Your task to perform on an android device: change the upload size in google photos Image 0: 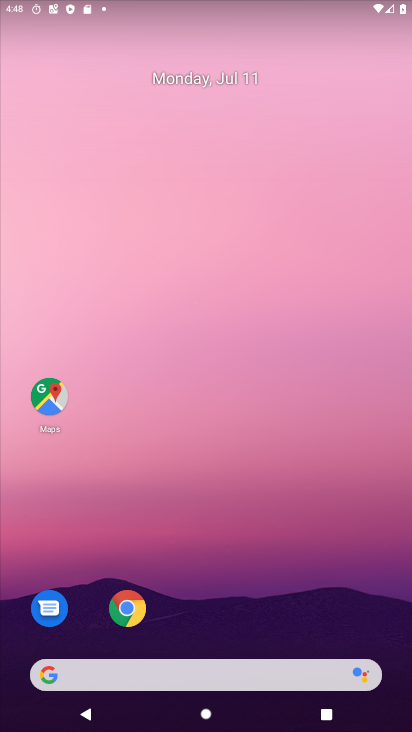
Step 0: drag from (206, 351) to (114, 36)
Your task to perform on an android device: change the upload size in google photos Image 1: 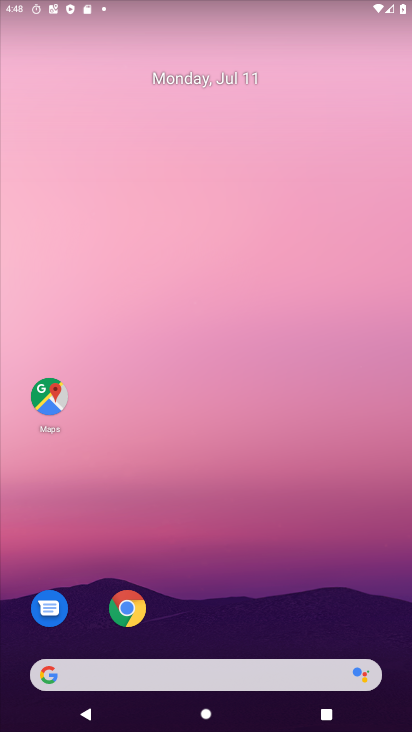
Step 1: drag from (274, 454) to (310, 194)
Your task to perform on an android device: change the upload size in google photos Image 2: 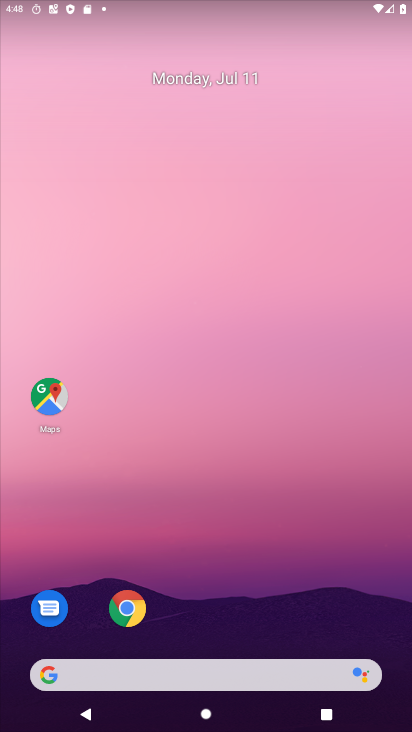
Step 2: drag from (250, 666) to (213, 164)
Your task to perform on an android device: change the upload size in google photos Image 3: 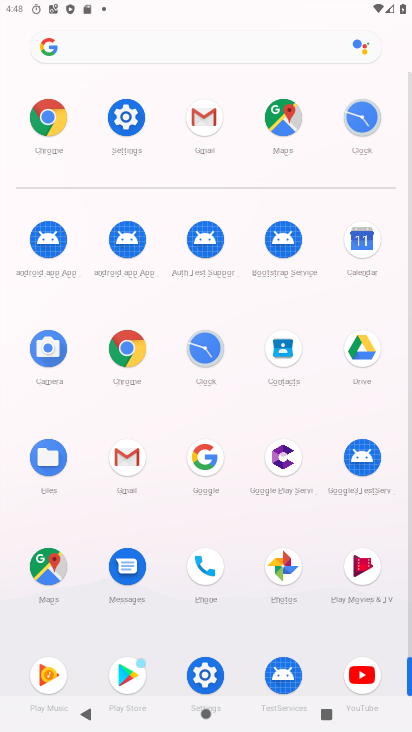
Step 3: click (274, 567)
Your task to perform on an android device: change the upload size in google photos Image 4: 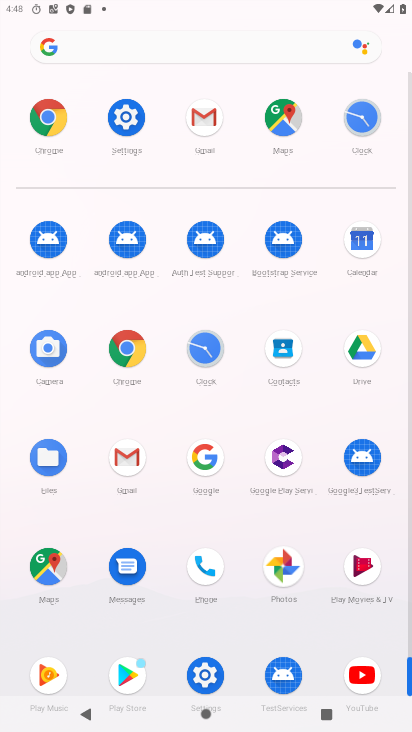
Step 4: click (274, 567)
Your task to perform on an android device: change the upload size in google photos Image 5: 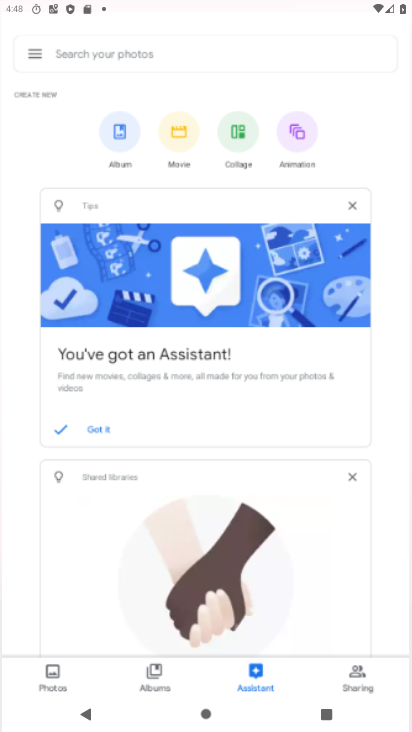
Step 5: click (275, 567)
Your task to perform on an android device: change the upload size in google photos Image 6: 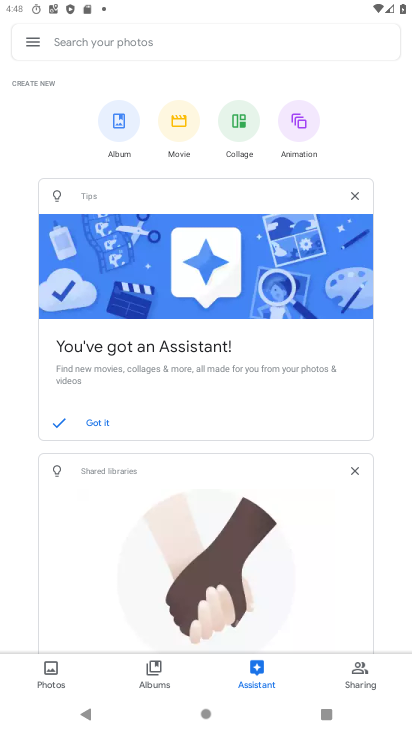
Step 6: click (29, 47)
Your task to perform on an android device: change the upload size in google photos Image 7: 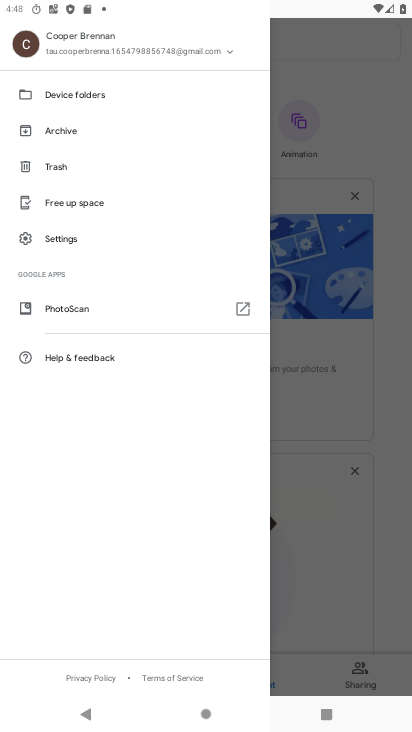
Step 7: click (55, 236)
Your task to perform on an android device: change the upload size in google photos Image 8: 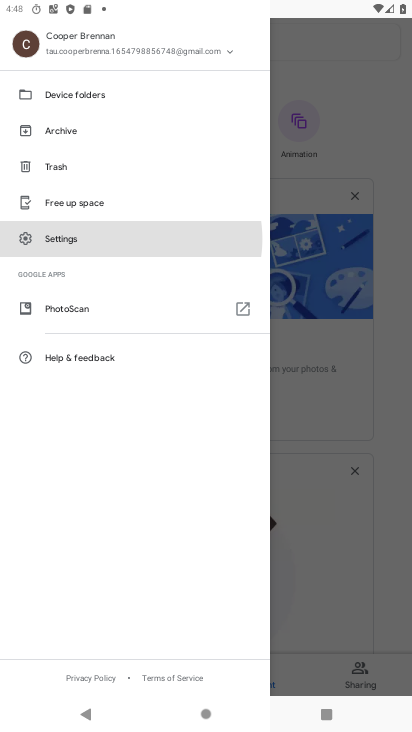
Step 8: click (59, 231)
Your task to perform on an android device: change the upload size in google photos Image 9: 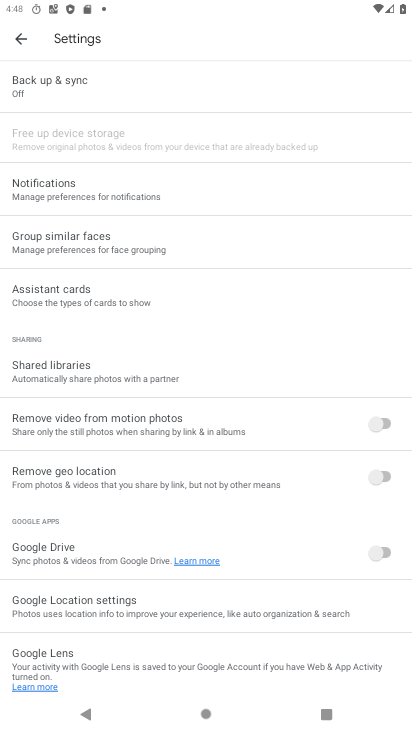
Step 9: click (45, 80)
Your task to perform on an android device: change the upload size in google photos Image 10: 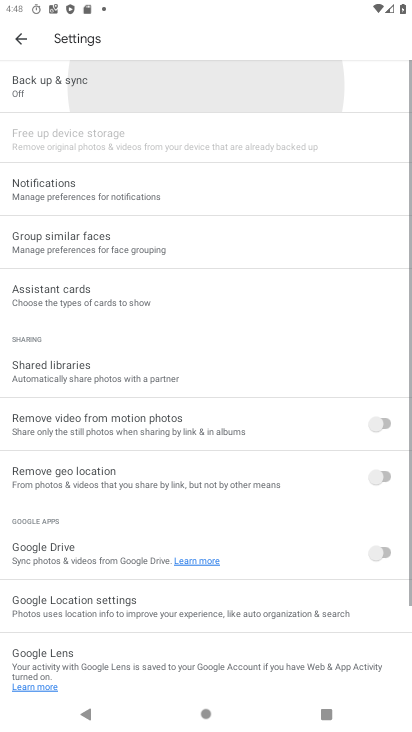
Step 10: click (44, 83)
Your task to perform on an android device: change the upload size in google photos Image 11: 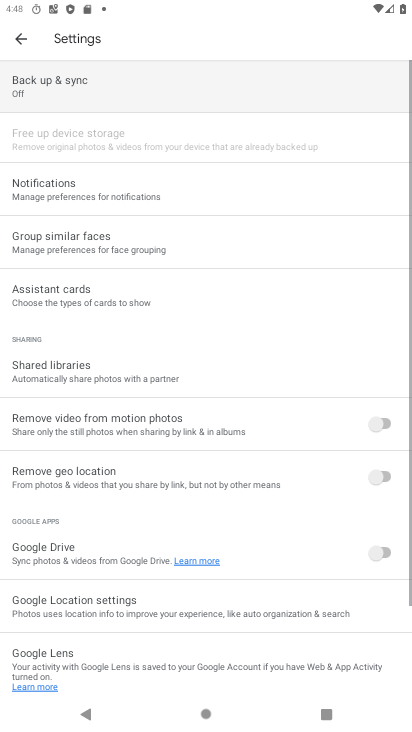
Step 11: click (44, 83)
Your task to perform on an android device: change the upload size in google photos Image 12: 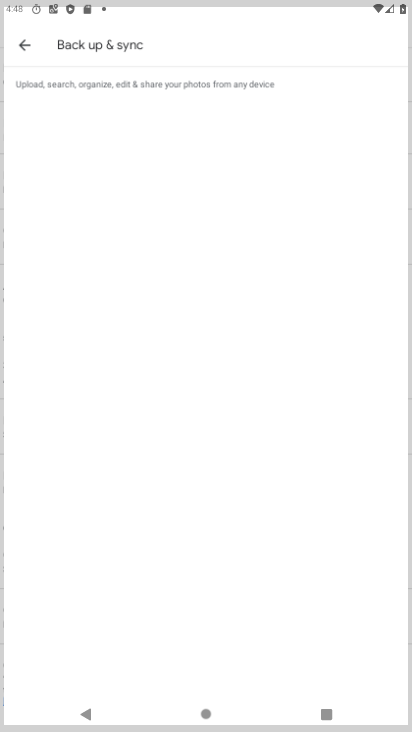
Step 12: click (44, 83)
Your task to perform on an android device: change the upload size in google photos Image 13: 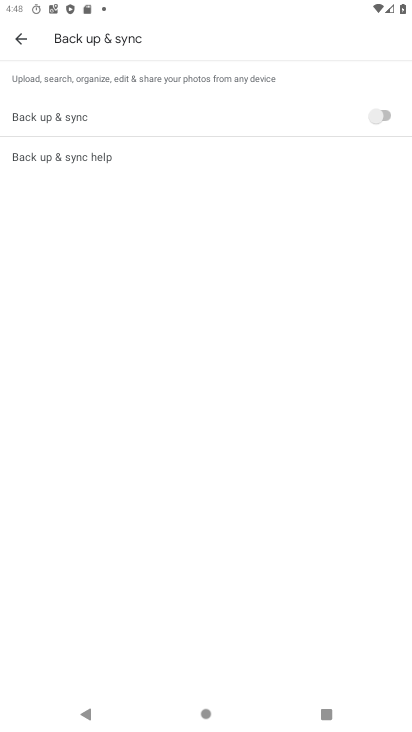
Step 13: click (35, 72)
Your task to perform on an android device: change the upload size in google photos Image 14: 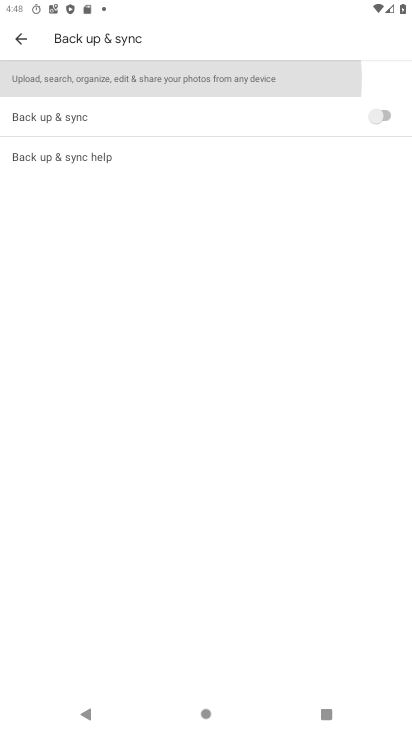
Step 14: click (39, 72)
Your task to perform on an android device: change the upload size in google photos Image 15: 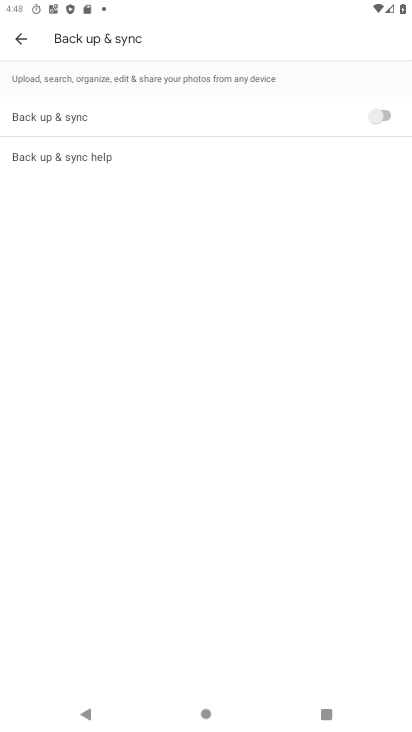
Step 15: click (44, 72)
Your task to perform on an android device: change the upload size in google photos Image 16: 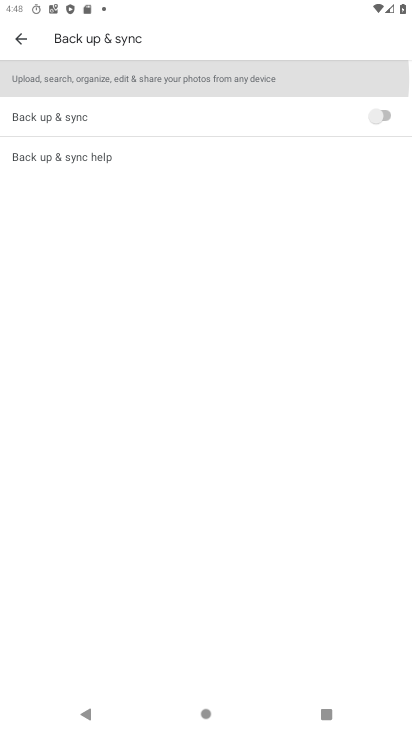
Step 16: click (47, 72)
Your task to perform on an android device: change the upload size in google photos Image 17: 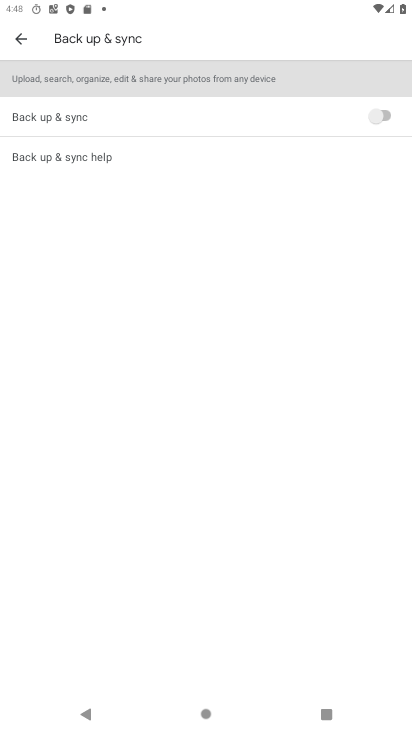
Step 17: click (51, 69)
Your task to perform on an android device: change the upload size in google photos Image 18: 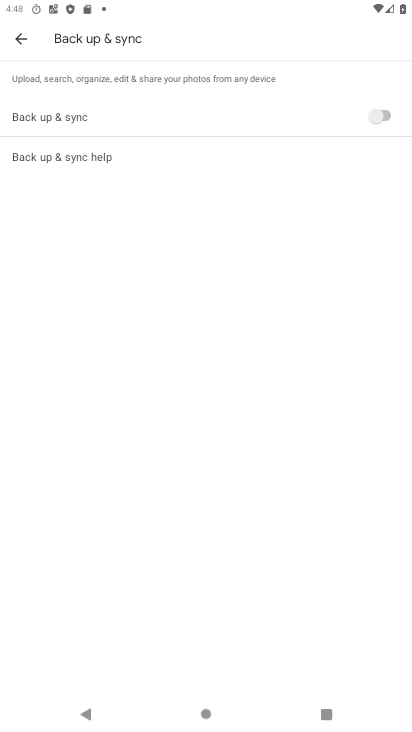
Step 18: click (372, 115)
Your task to perform on an android device: change the upload size in google photos Image 19: 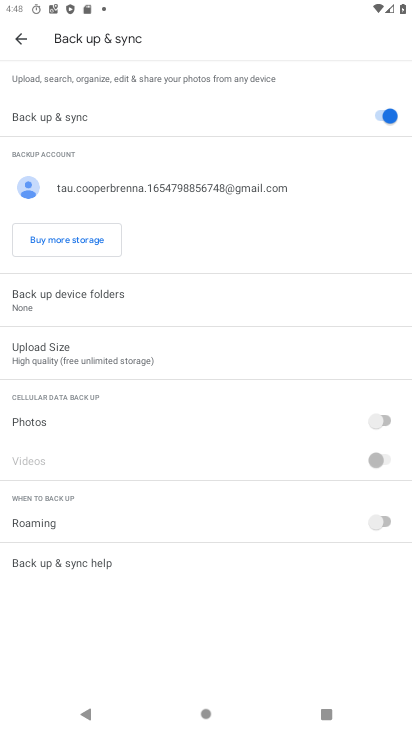
Step 19: click (64, 360)
Your task to perform on an android device: change the upload size in google photos Image 20: 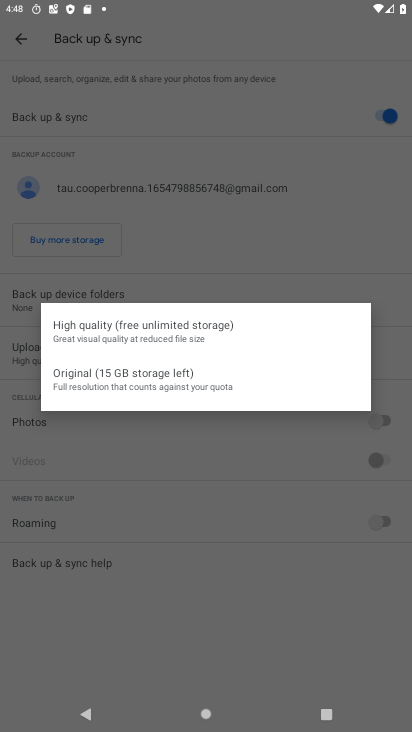
Step 20: click (100, 386)
Your task to perform on an android device: change the upload size in google photos Image 21: 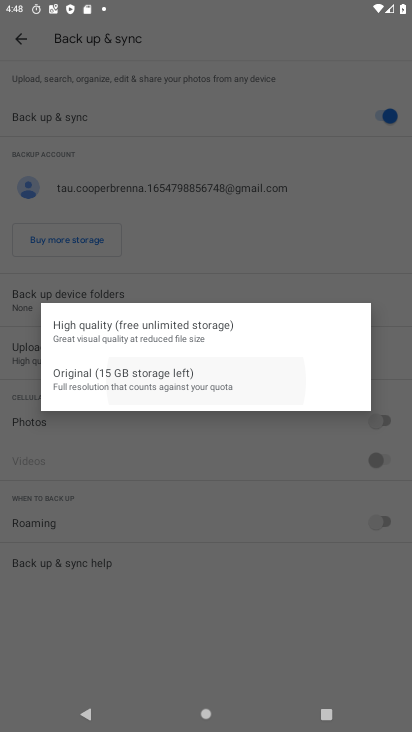
Step 21: click (107, 381)
Your task to perform on an android device: change the upload size in google photos Image 22: 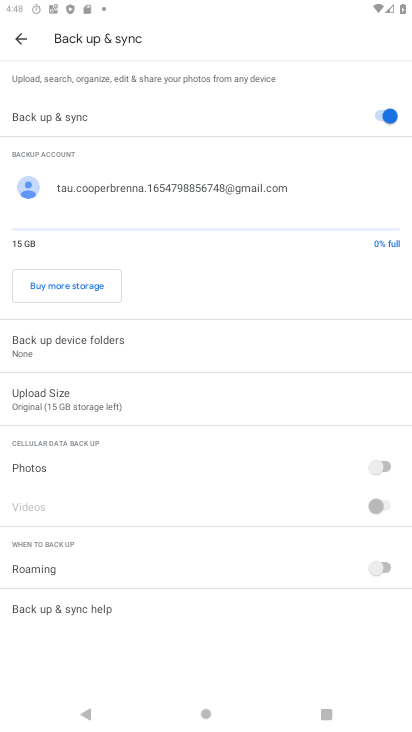
Step 22: click (112, 378)
Your task to perform on an android device: change the upload size in google photos Image 23: 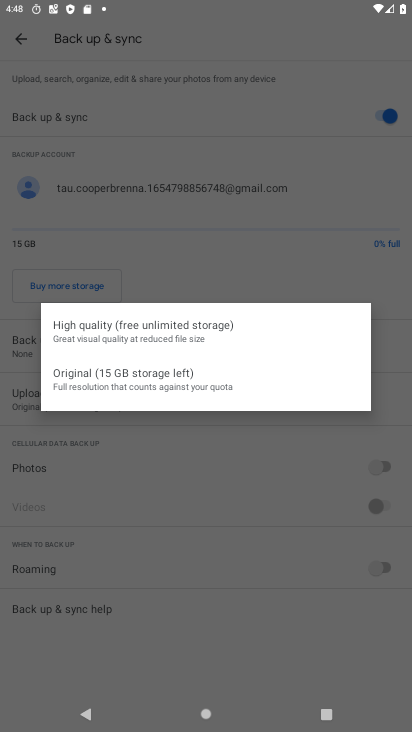
Step 23: task complete